Your task to perform on an android device: add a contact in the contacts app Image 0: 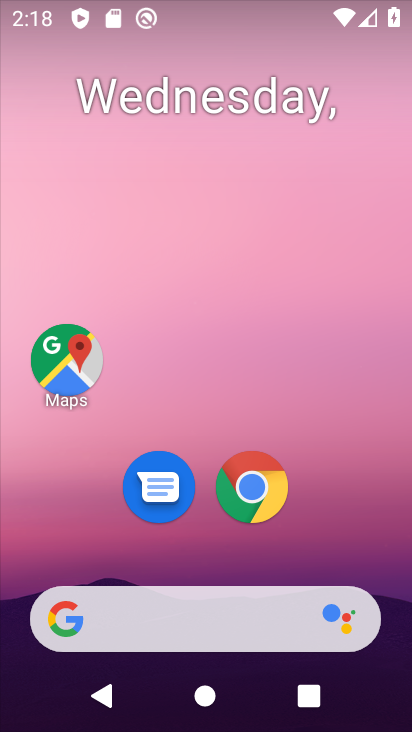
Step 0: drag from (167, 621) to (284, 10)
Your task to perform on an android device: add a contact in the contacts app Image 1: 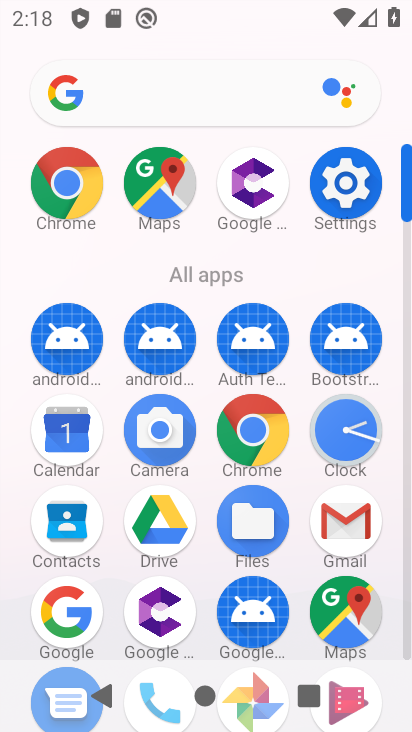
Step 1: click (62, 522)
Your task to perform on an android device: add a contact in the contacts app Image 2: 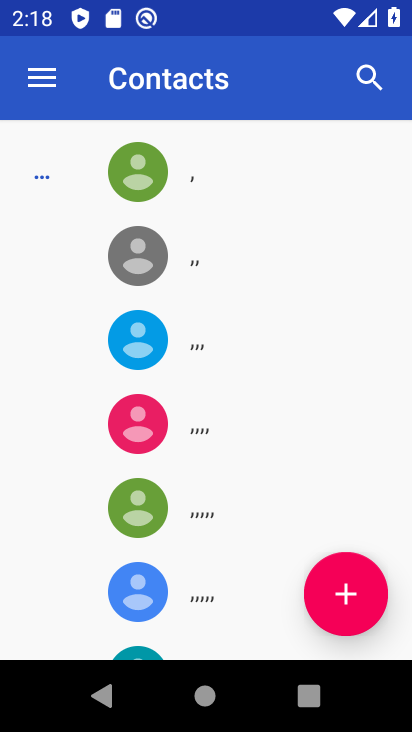
Step 2: click (345, 588)
Your task to perform on an android device: add a contact in the contacts app Image 3: 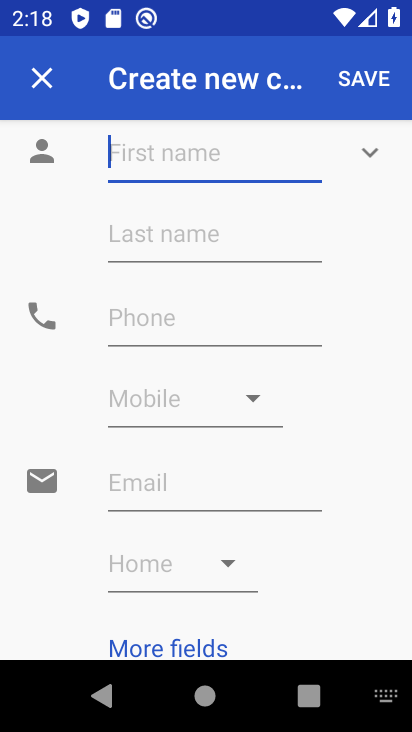
Step 3: type "hjfj,hk"
Your task to perform on an android device: add a contact in the contacts app Image 4: 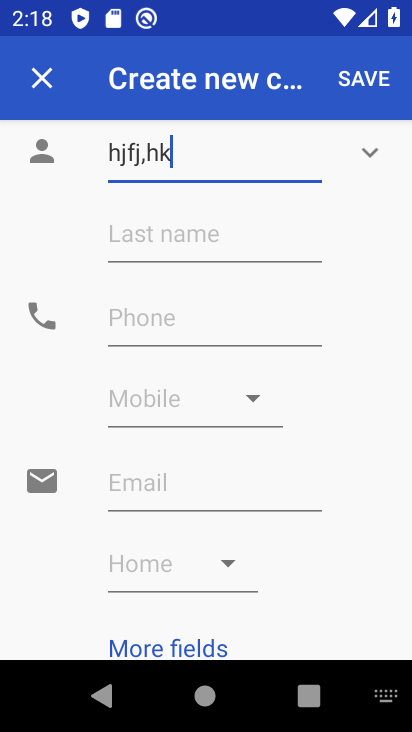
Step 4: click (211, 326)
Your task to perform on an android device: add a contact in the contacts app Image 5: 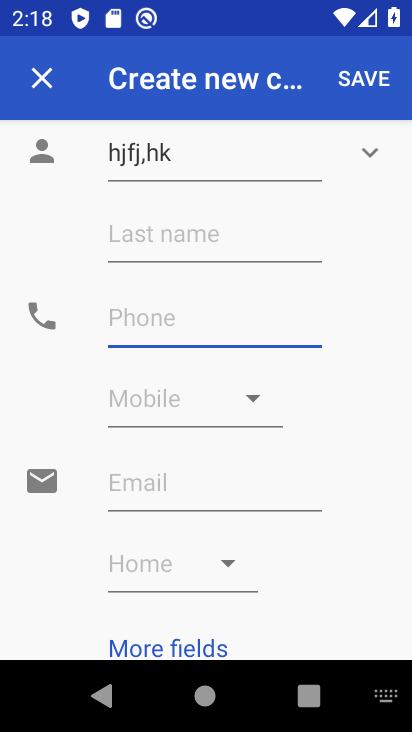
Step 5: type "67888"
Your task to perform on an android device: add a contact in the contacts app Image 6: 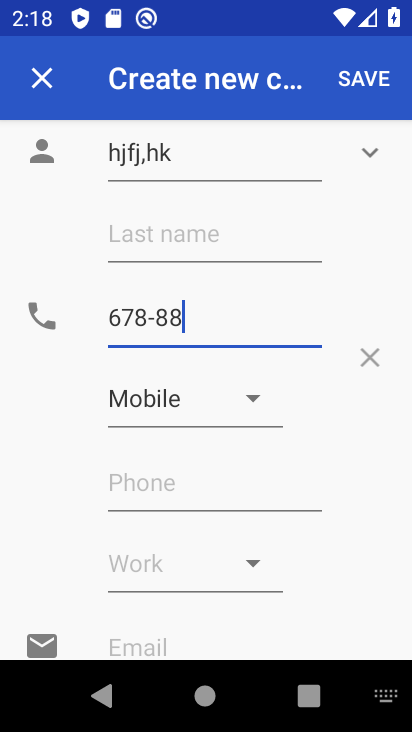
Step 6: click (372, 91)
Your task to perform on an android device: add a contact in the contacts app Image 7: 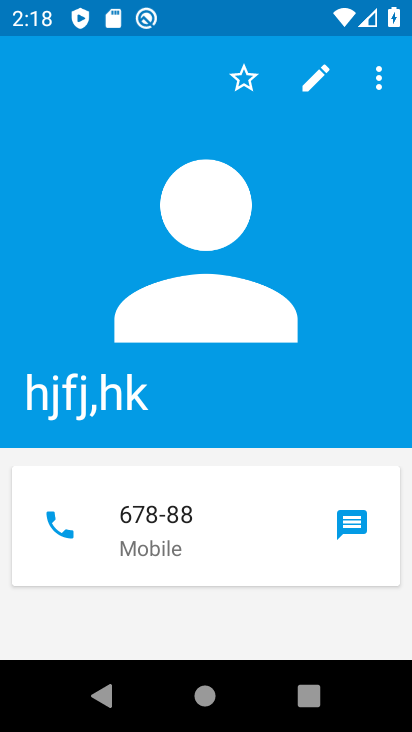
Step 7: task complete